Your task to perform on an android device: Open CNN.com Image 0: 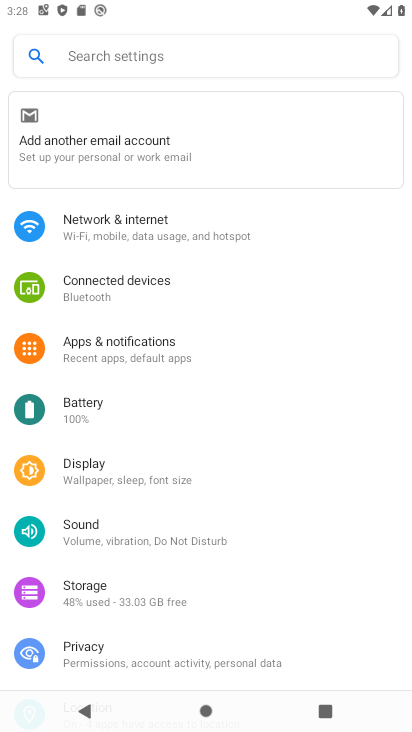
Step 0: press back button
Your task to perform on an android device: Open CNN.com Image 1: 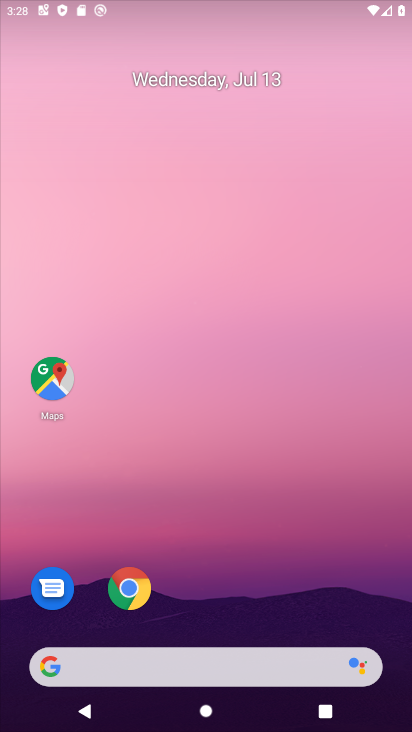
Step 1: drag from (252, 635) to (162, 44)
Your task to perform on an android device: Open CNN.com Image 2: 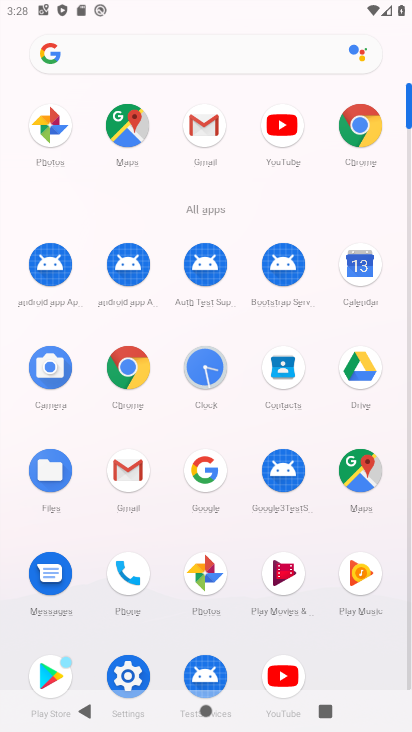
Step 2: click (363, 122)
Your task to perform on an android device: Open CNN.com Image 3: 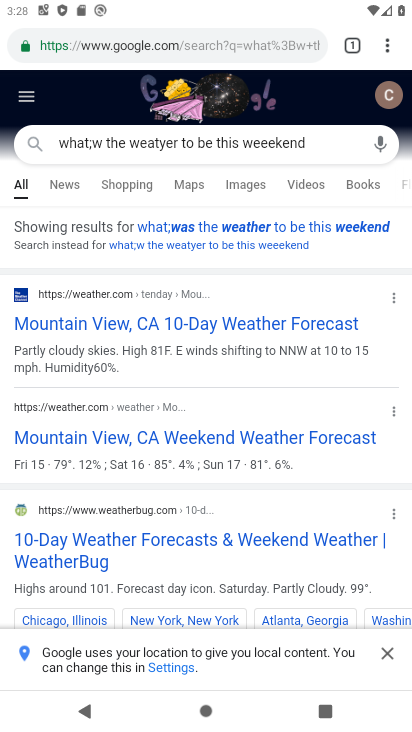
Step 3: drag from (386, 44) to (378, 108)
Your task to perform on an android device: Open CNN.com Image 4: 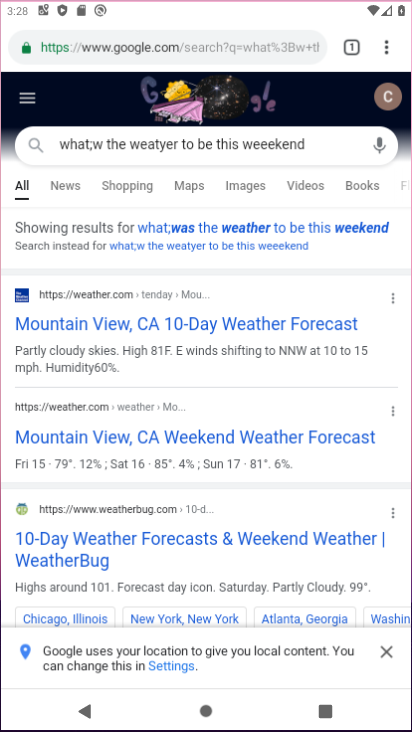
Step 4: drag from (393, 39) to (296, 129)
Your task to perform on an android device: Open CNN.com Image 5: 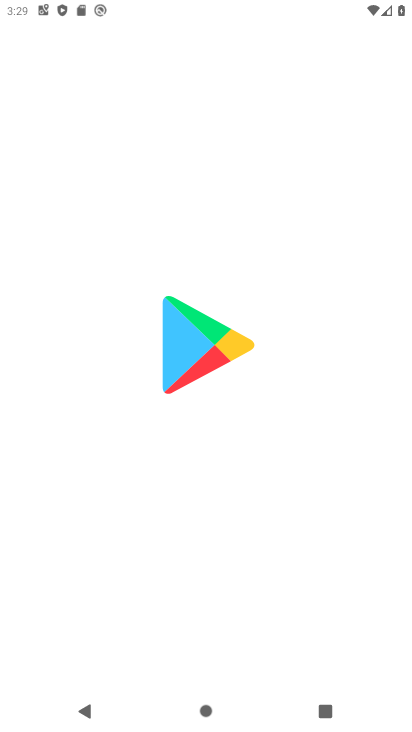
Step 5: press back button
Your task to perform on an android device: Open CNN.com Image 6: 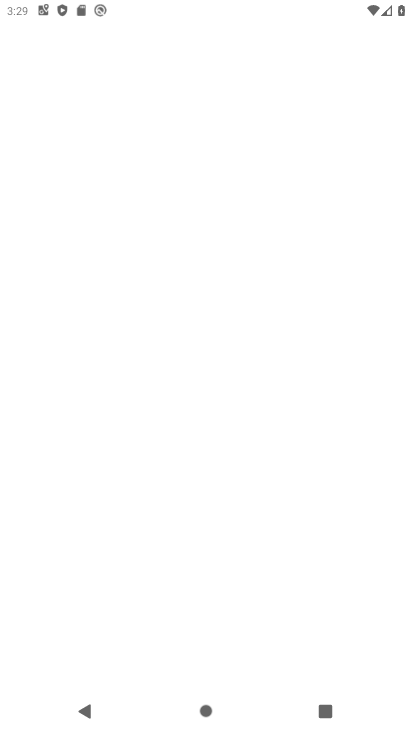
Step 6: press back button
Your task to perform on an android device: Open CNN.com Image 7: 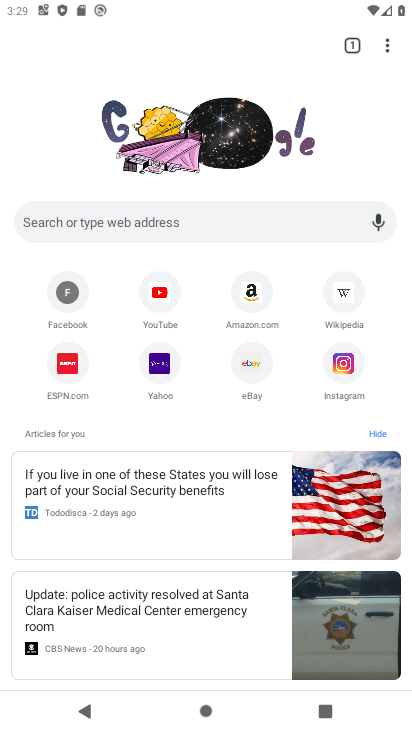
Step 7: click (385, 48)
Your task to perform on an android device: Open CNN.com Image 8: 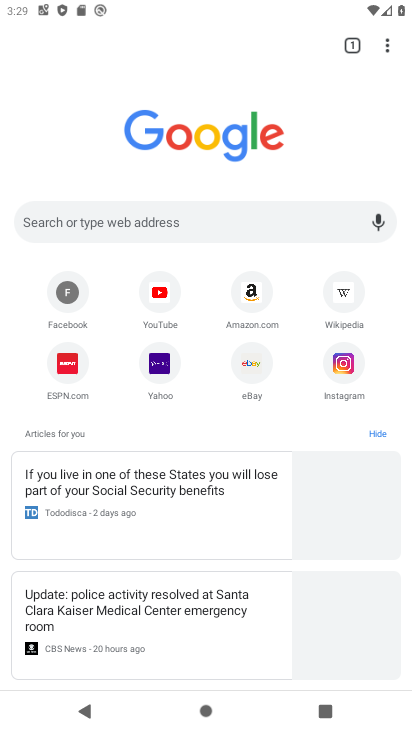
Step 8: click (93, 54)
Your task to perform on an android device: Open CNN.com Image 9: 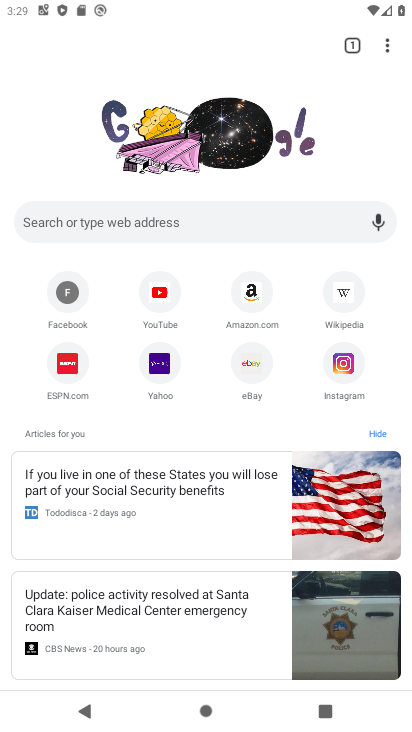
Step 9: click (93, 54)
Your task to perform on an android device: Open CNN.com Image 10: 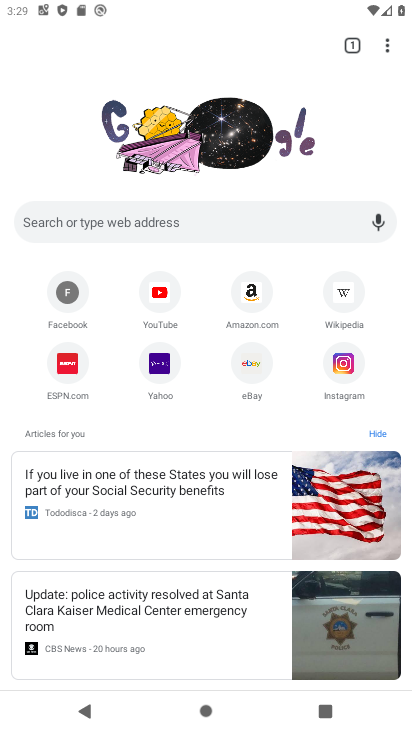
Step 10: click (62, 219)
Your task to perform on an android device: Open CNN.com Image 11: 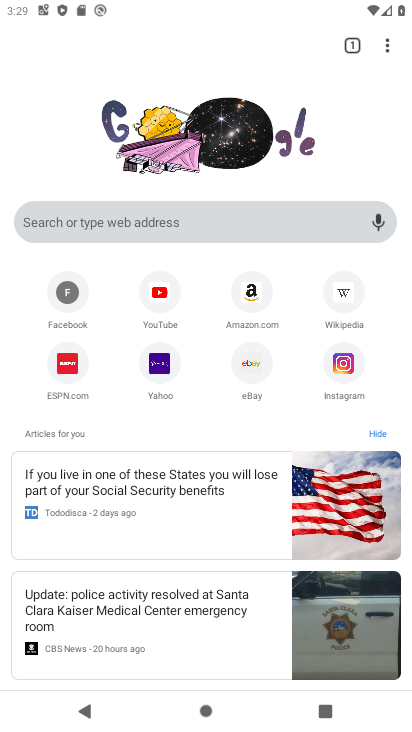
Step 11: click (62, 219)
Your task to perform on an android device: Open CNN.com Image 12: 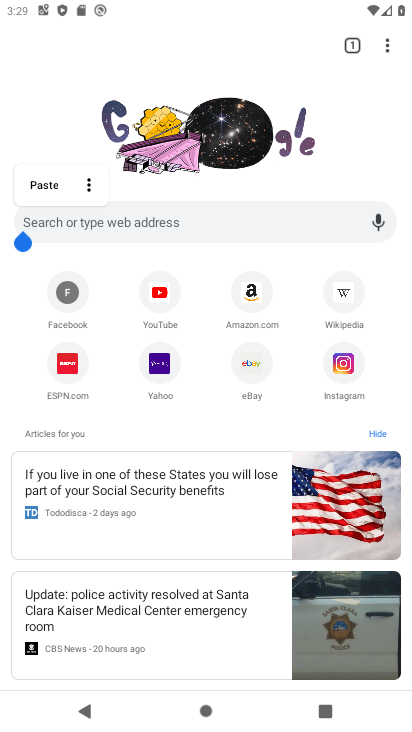
Step 12: click (143, 202)
Your task to perform on an android device: Open CNN.com Image 13: 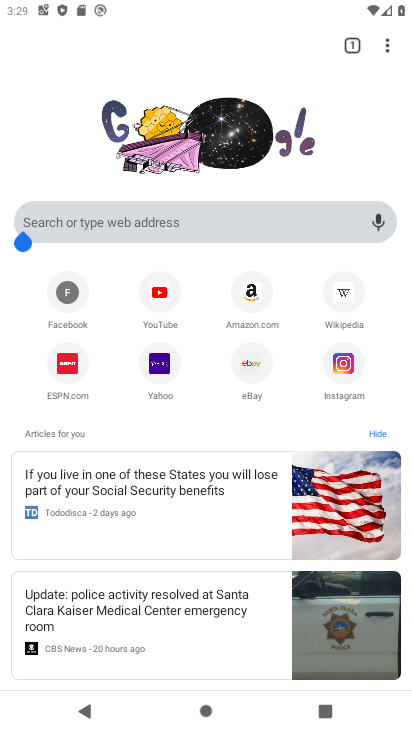
Step 13: click (145, 209)
Your task to perform on an android device: Open CNN.com Image 14: 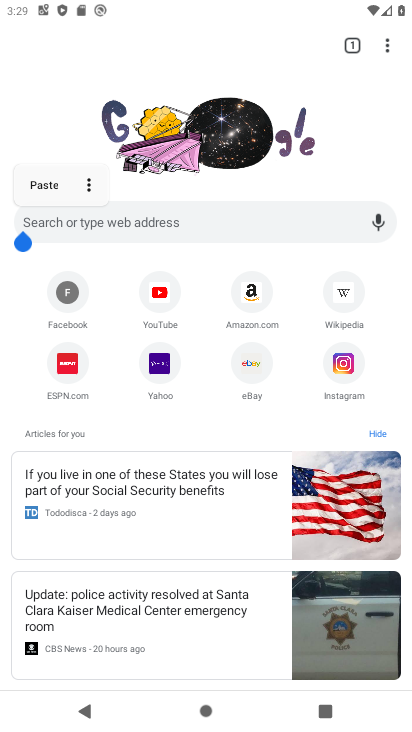
Step 14: click (145, 210)
Your task to perform on an android device: Open CNN.com Image 15: 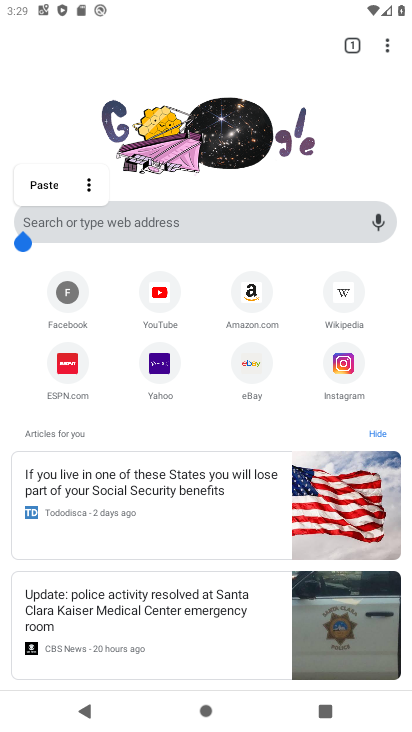
Step 15: click (145, 211)
Your task to perform on an android device: Open CNN.com Image 16: 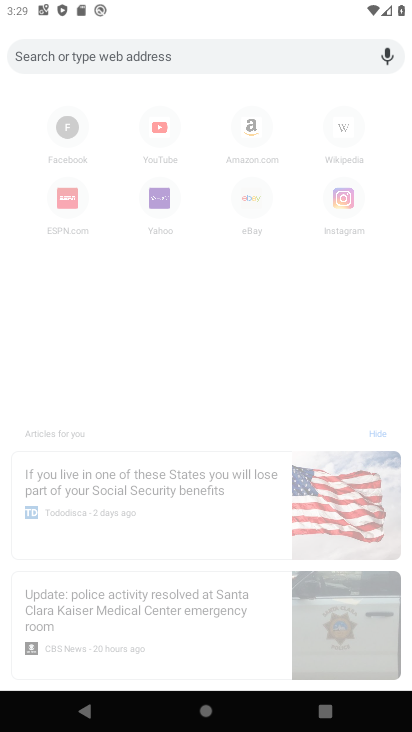
Step 16: click (146, 212)
Your task to perform on an android device: Open CNN.com Image 17: 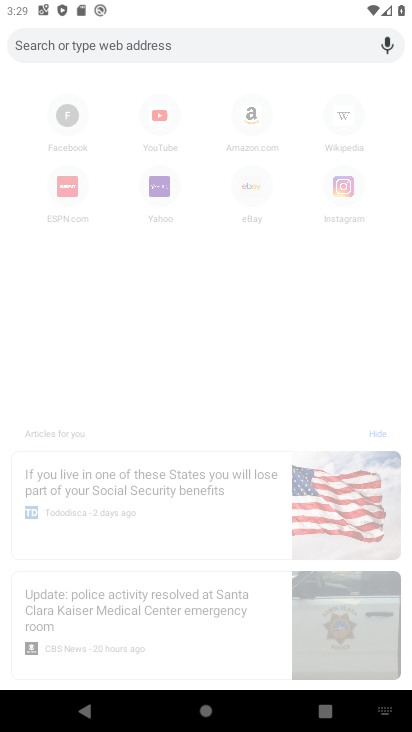
Step 17: type "CNN.com"
Your task to perform on an android device: Open CNN.com Image 18: 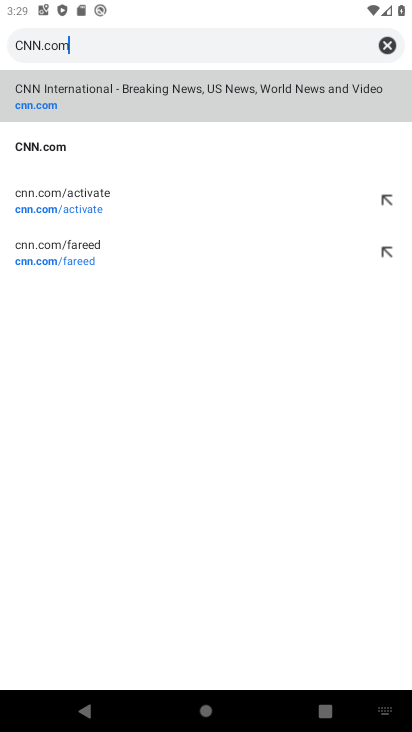
Step 18: click (45, 142)
Your task to perform on an android device: Open CNN.com Image 19: 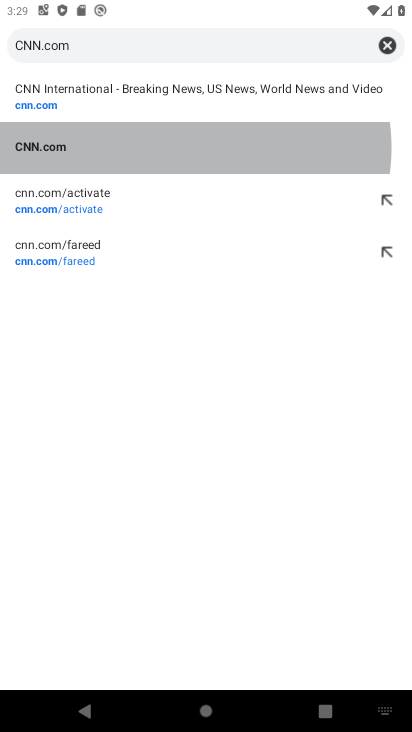
Step 19: click (44, 143)
Your task to perform on an android device: Open CNN.com Image 20: 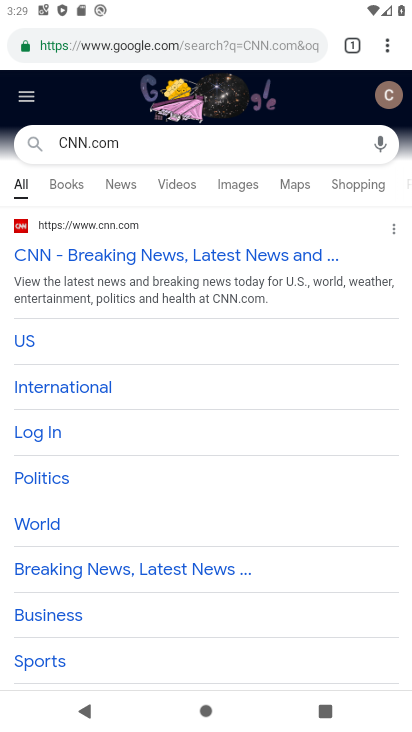
Step 20: task complete